Your task to perform on an android device: uninstall "Lyft - Rideshare, Bikes, Scooters & Transit" Image 0: 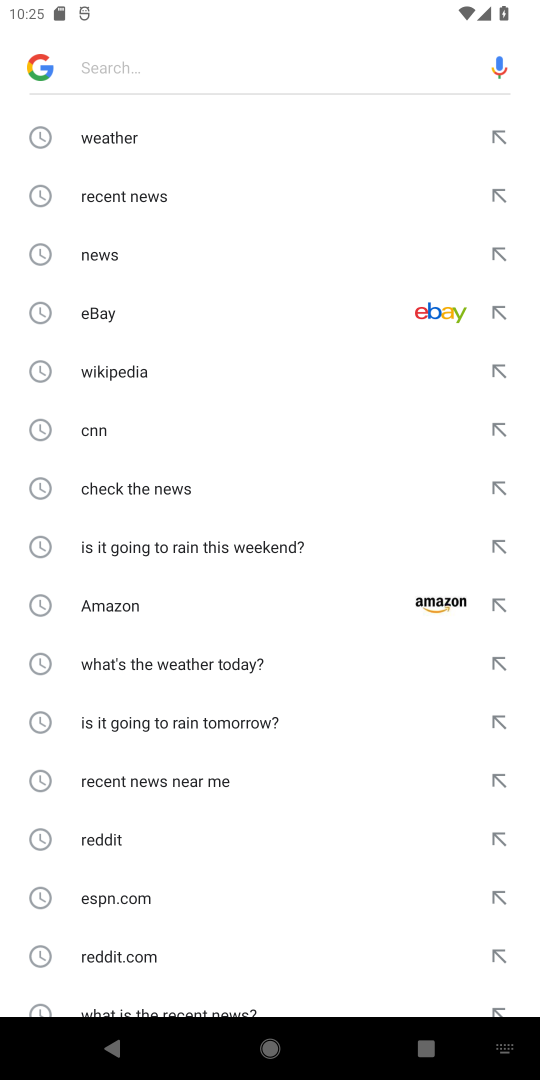
Step 0: press back button
Your task to perform on an android device: uninstall "Lyft - Rideshare, Bikes, Scooters & Transit" Image 1: 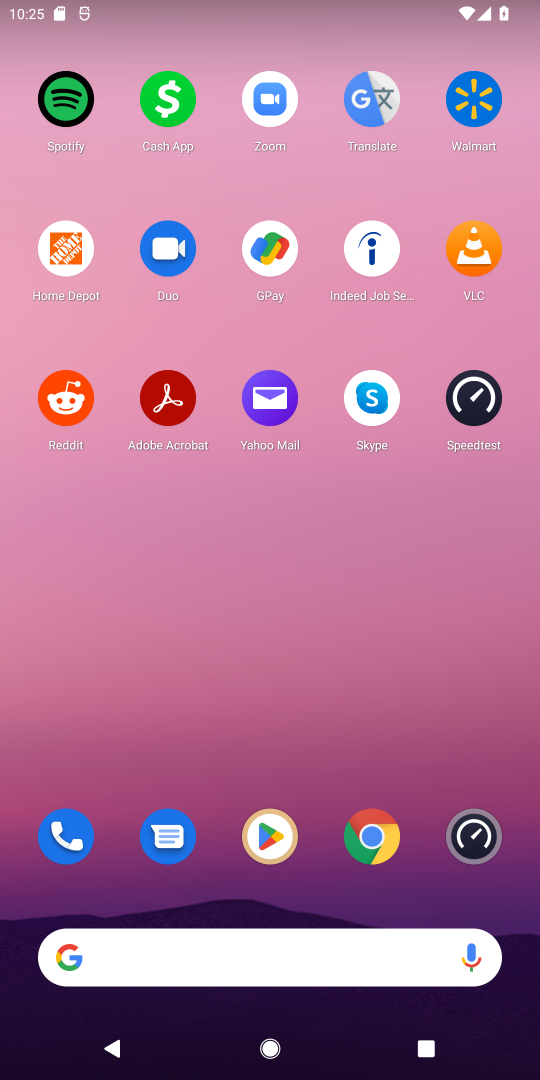
Step 1: click (258, 836)
Your task to perform on an android device: uninstall "Lyft - Rideshare, Bikes, Scooters & Transit" Image 2: 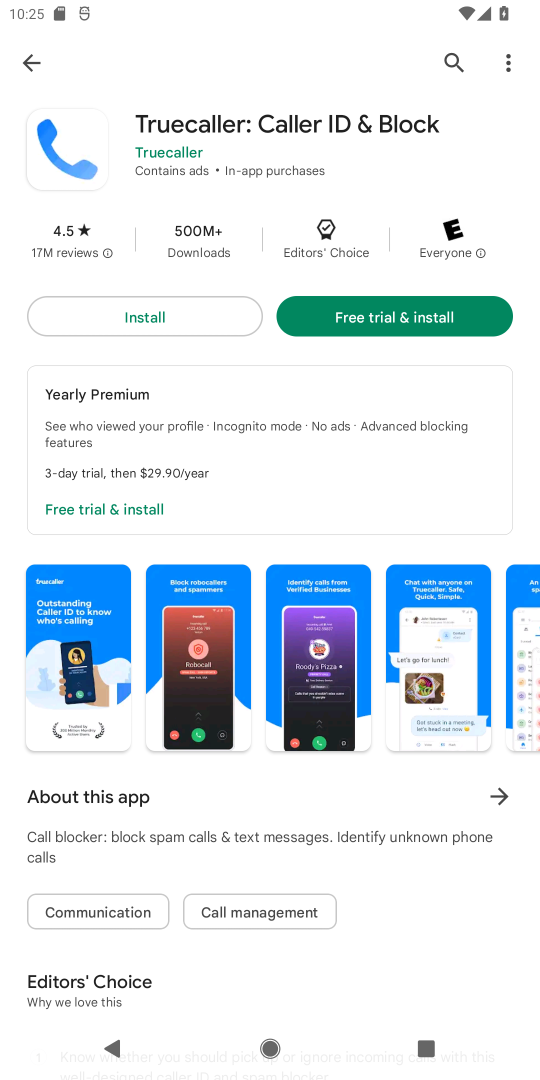
Step 2: click (459, 51)
Your task to perform on an android device: uninstall "Lyft - Rideshare, Bikes, Scooters & Transit" Image 3: 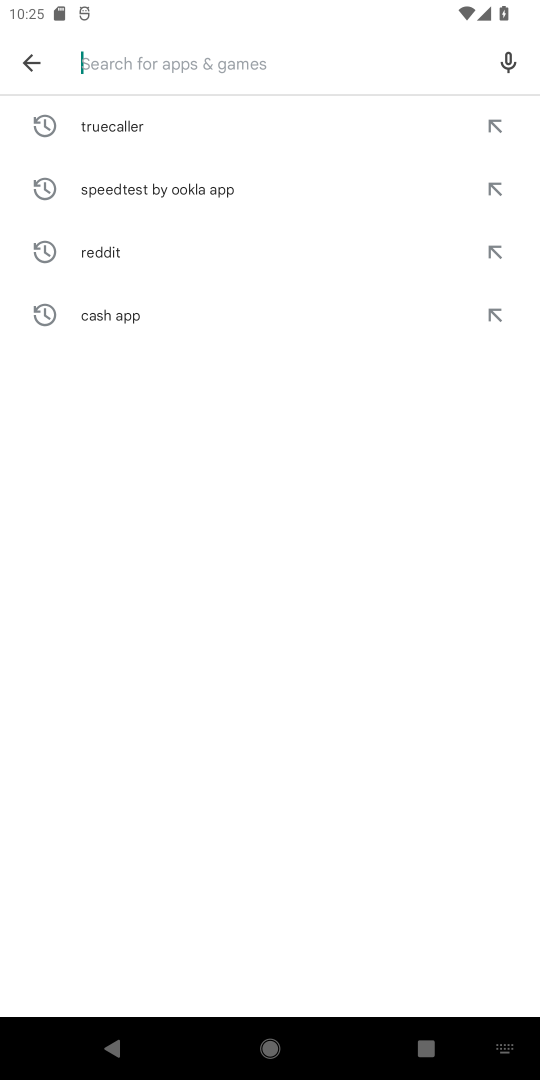
Step 3: type "Lyft "
Your task to perform on an android device: uninstall "Lyft - Rideshare, Bikes, Scooters & Transit" Image 4: 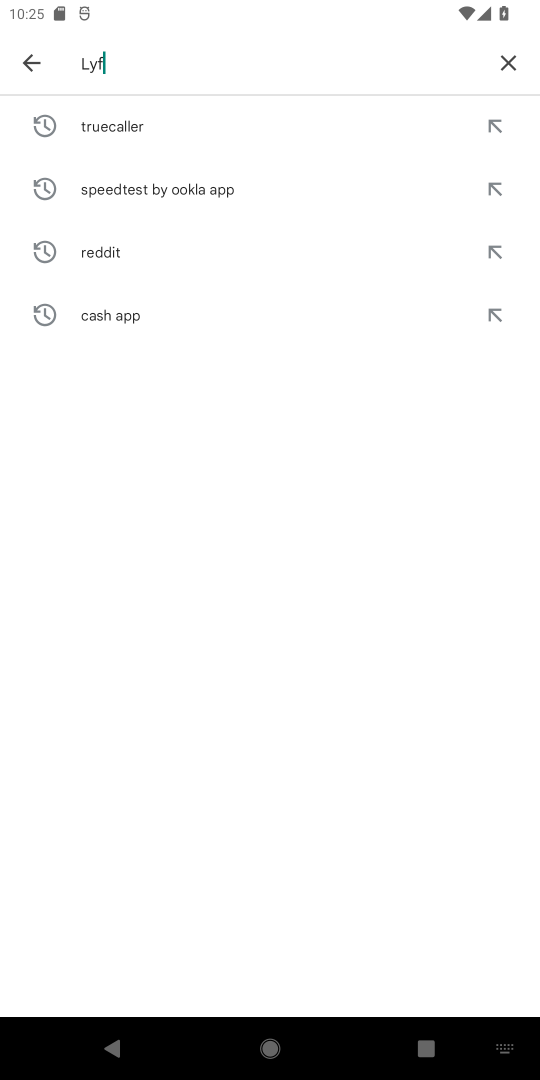
Step 4: type ""
Your task to perform on an android device: uninstall "Lyft - Rideshare, Bikes, Scooters & Transit" Image 5: 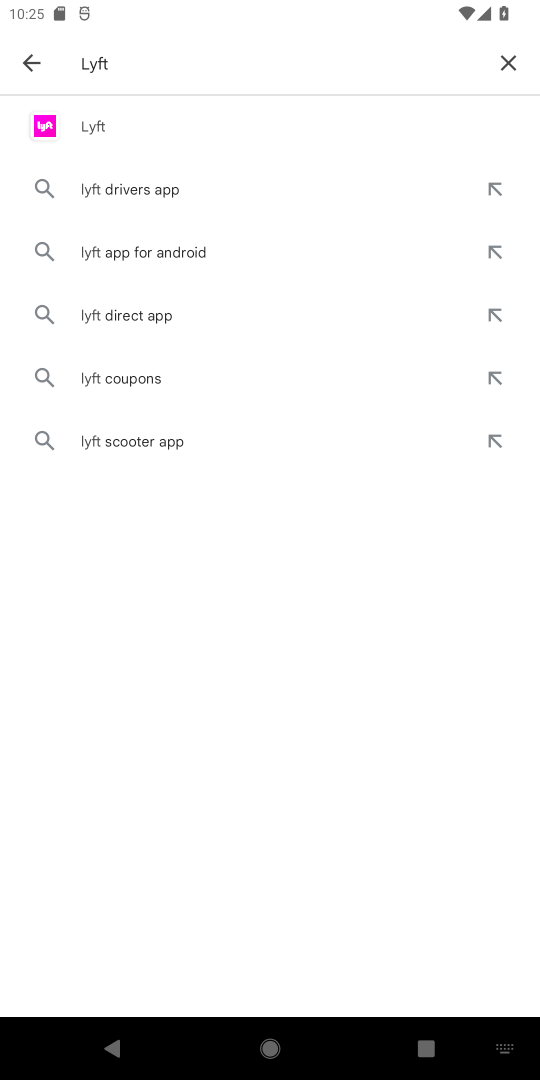
Step 5: click (118, 119)
Your task to perform on an android device: uninstall "Lyft - Rideshare, Bikes, Scooters & Transit" Image 6: 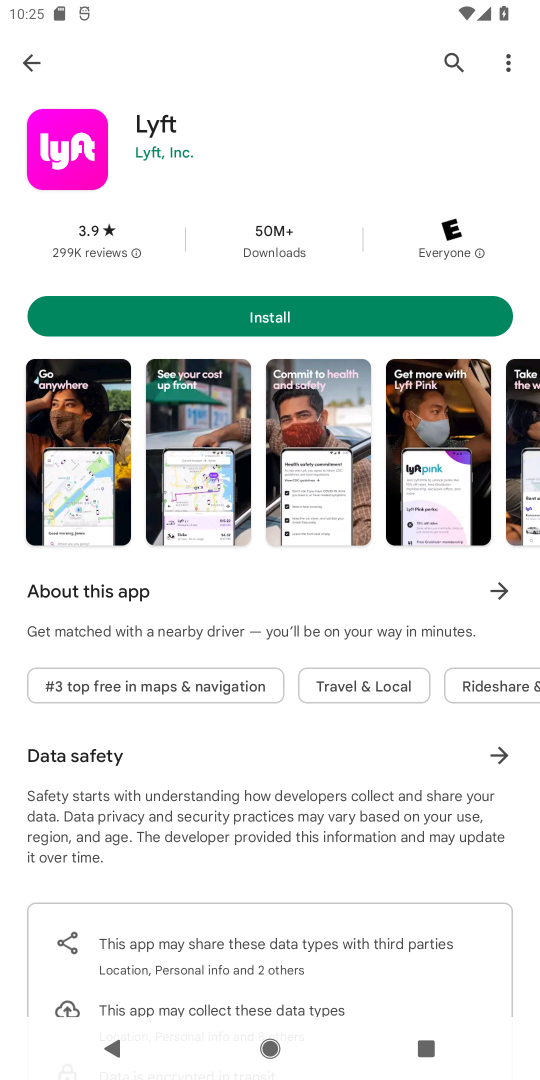
Step 6: task complete